Your task to perform on an android device: Open calendar and show me the third week of next month Image 0: 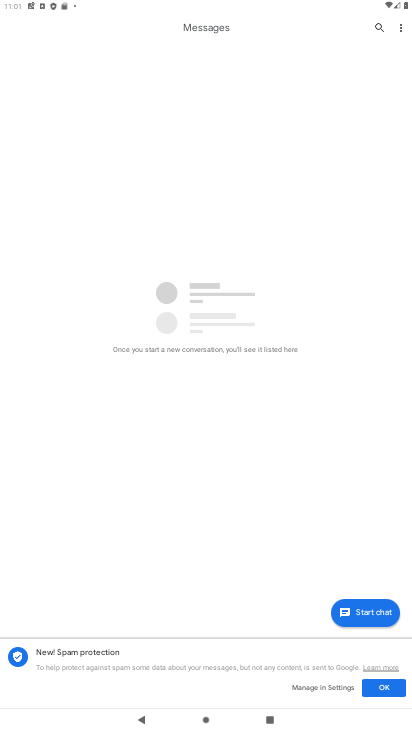
Step 0: press home button
Your task to perform on an android device: Open calendar and show me the third week of next month Image 1: 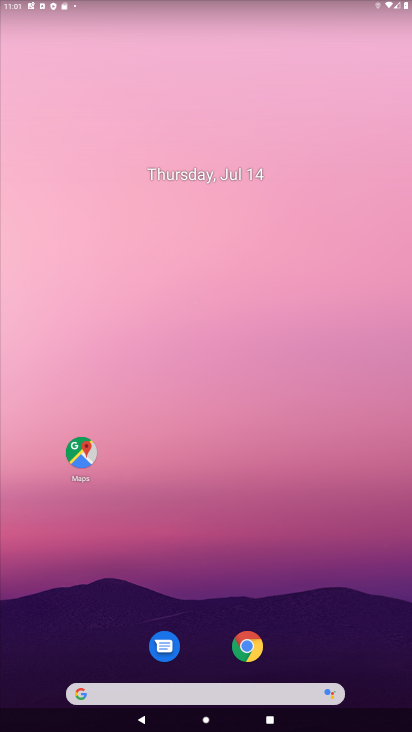
Step 1: drag from (198, 614) to (240, 121)
Your task to perform on an android device: Open calendar and show me the third week of next month Image 2: 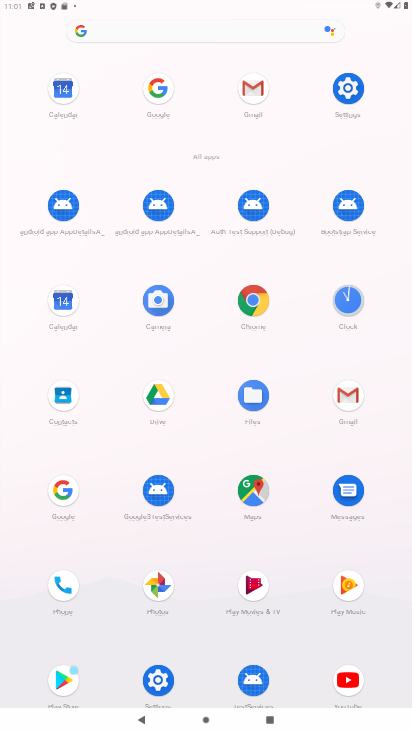
Step 2: click (72, 308)
Your task to perform on an android device: Open calendar and show me the third week of next month Image 3: 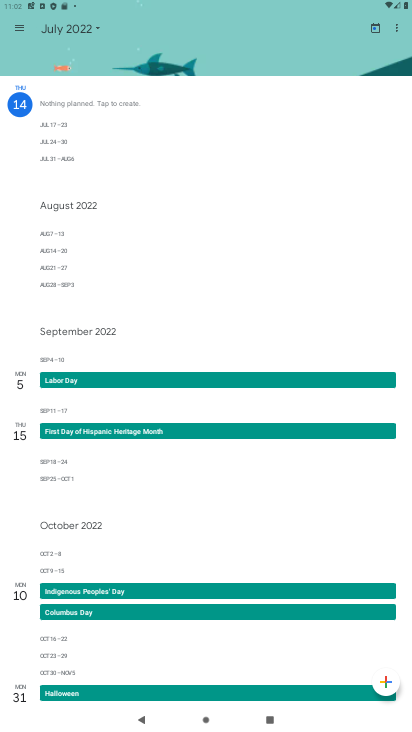
Step 3: click (92, 34)
Your task to perform on an android device: Open calendar and show me the third week of next month Image 4: 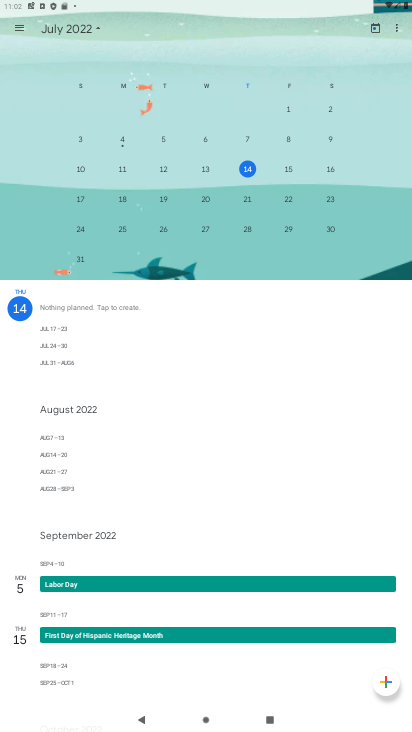
Step 4: drag from (364, 194) to (0, 173)
Your task to perform on an android device: Open calendar and show me the third week of next month Image 5: 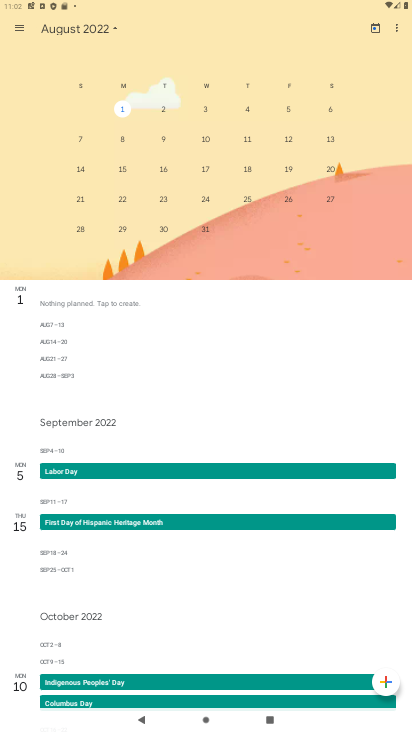
Step 5: click (85, 170)
Your task to perform on an android device: Open calendar and show me the third week of next month Image 6: 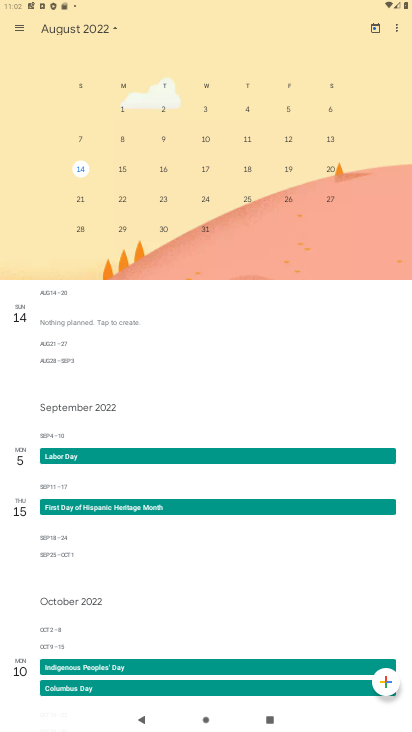
Step 6: click (105, 166)
Your task to perform on an android device: Open calendar and show me the third week of next month Image 7: 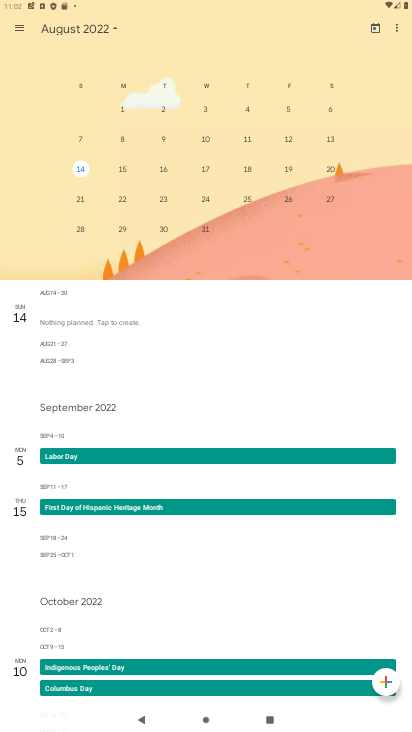
Step 7: task complete